Your task to perform on an android device: What's the weather? Image 0: 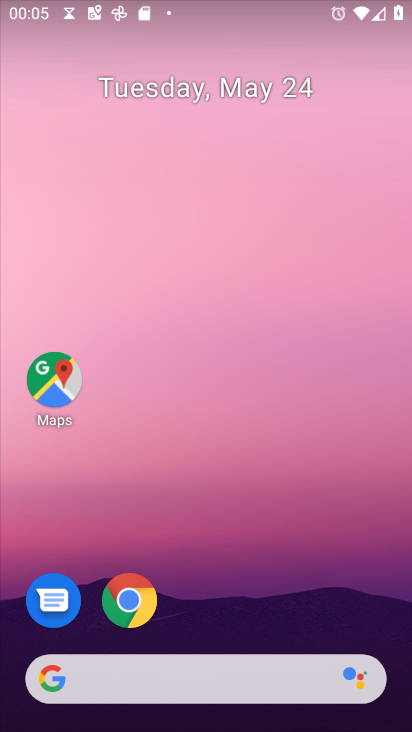
Step 0: drag from (208, 705) to (212, 181)
Your task to perform on an android device: What's the weather? Image 1: 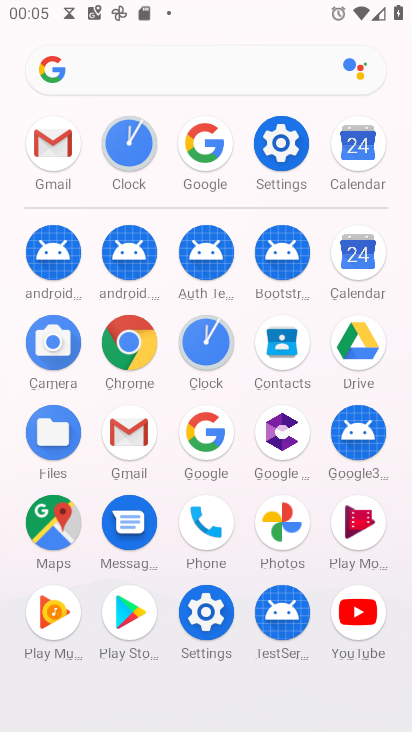
Step 1: click (209, 426)
Your task to perform on an android device: What's the weather? Image 2: 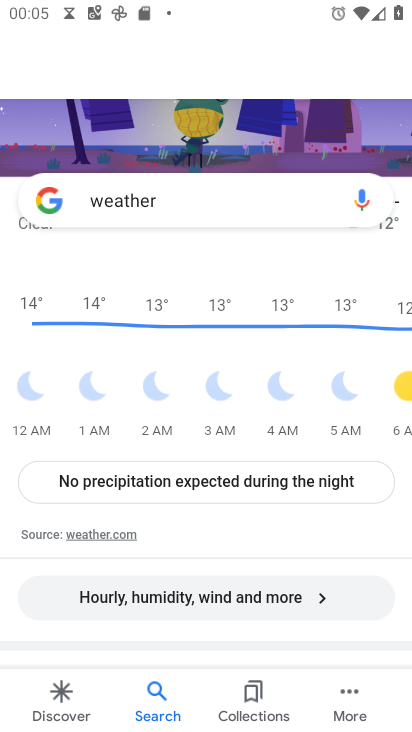
Step 2: drag from (228, 266) to (231, 509)
Your task to perform on an android device: What's the weather? Image 3: 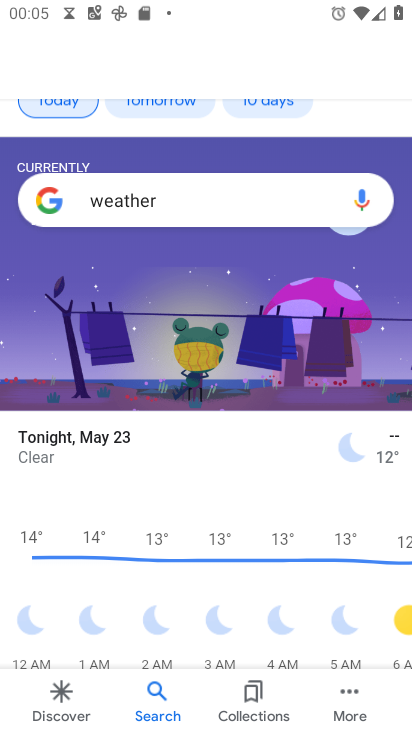
Step 3: click (55, 106)
Your task to perform on an android device: What's the weather? Image 4: 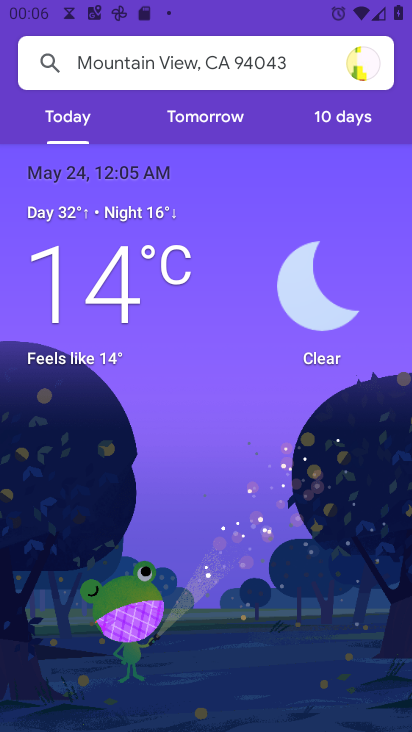
Step 4: task complete